Your task to perform on an android device: Open Google Maps and go to "Timeline" Image 0: 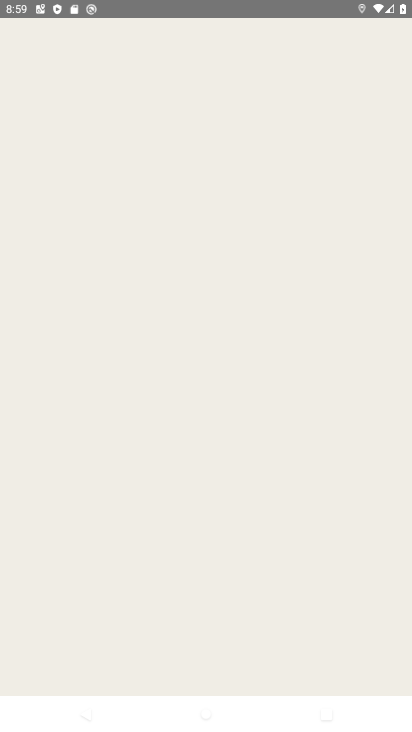
Step 0: press home button
Your task to perform on an android device: Open Google Maps and go to "Timeline" Image 1: 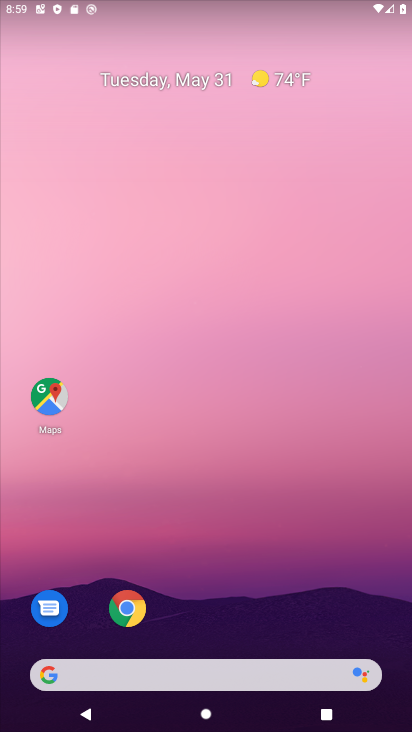
Step 1: drag from (206, 652) to (220, 9)
Your task to perform on an android device: Open Google Maps and go to "Timeline" Image 2: 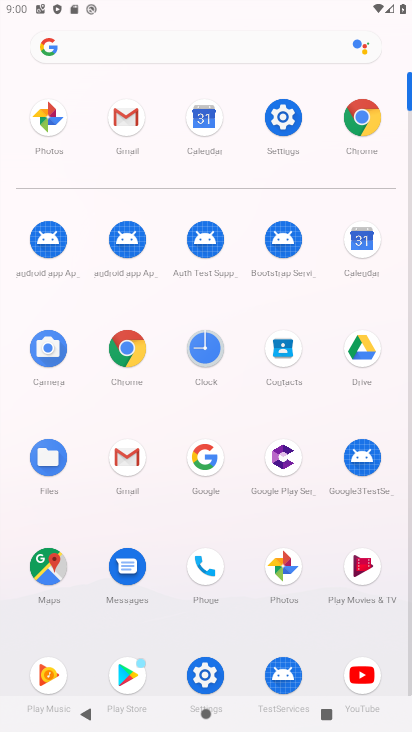
Step 2: click (41, 577)
Your task to perform on an android device: Open Google Maps and go to "Timeline" Image 3: 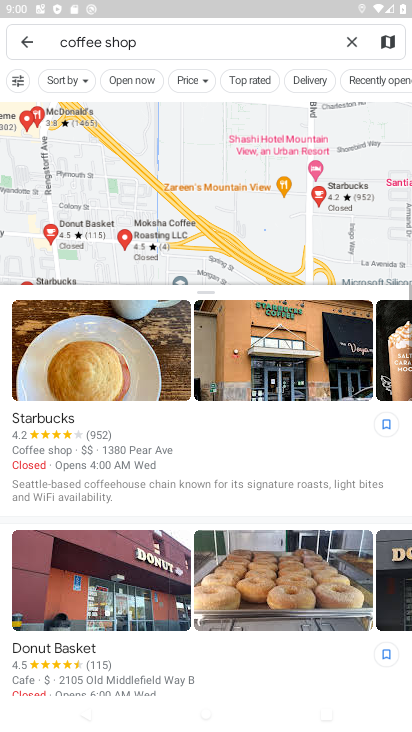
Step 3: click (26, 53)
Your task to perform on an android device: Open Google Maps and go to "Timeline" Image 4: 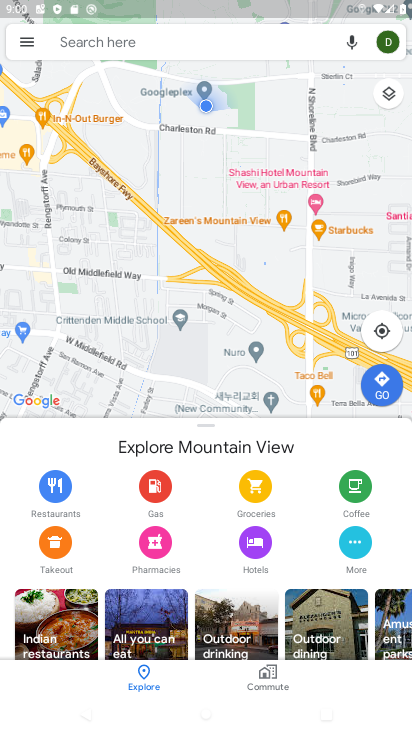
Step 4: click (26, 44)
Your task to perform on an android device: Open Google Maps and go to "Timeline" Image 5: 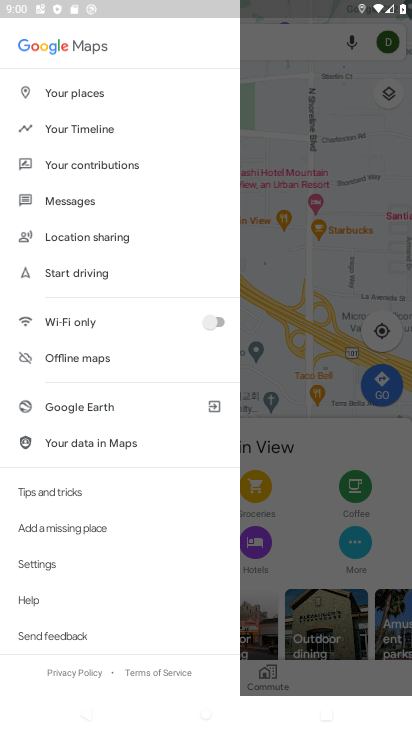
Step 5: click (44, 121)
Your task to perform on an android device: Open Google Maps and go to "Timeline" Image 6: 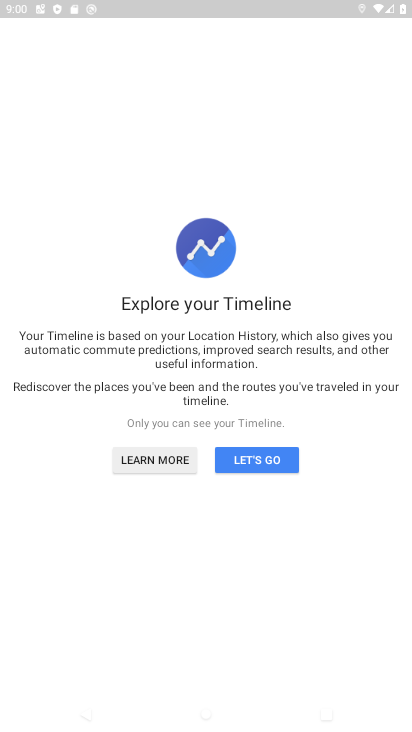
Step 6: click (262, 460)
Your task to perform on an android device: Open Google Maps and go to "Timeline" Image 7: 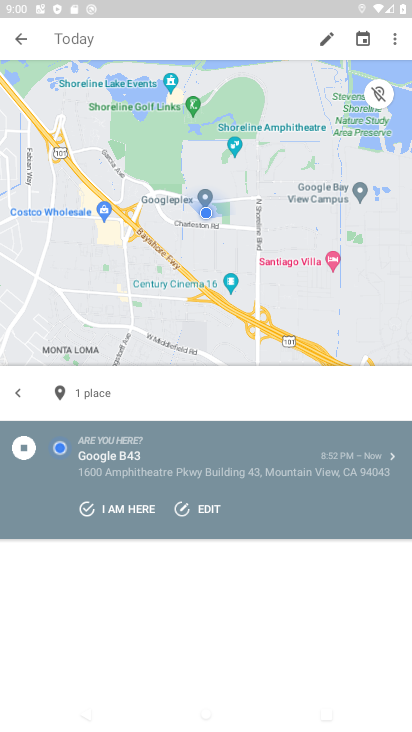
Step 7: task complete